Your task to perform on an android device: Open the calendar and show me this week's events Image 0: 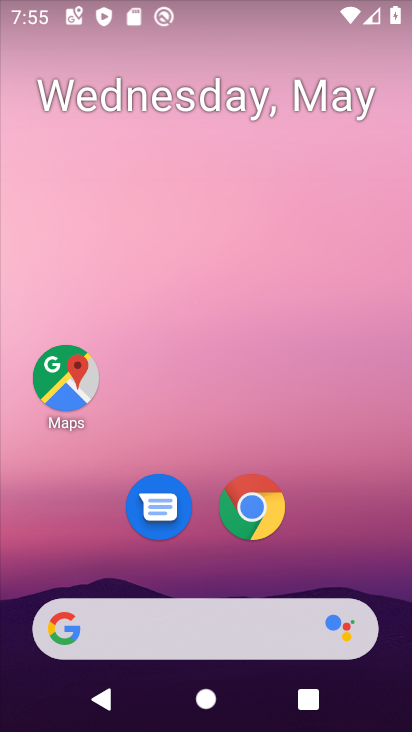
Step 0: drag from (321, 551) to (303, 251)
Your task to perform on an android device: Open the calendar and show me this week's events Image 1: 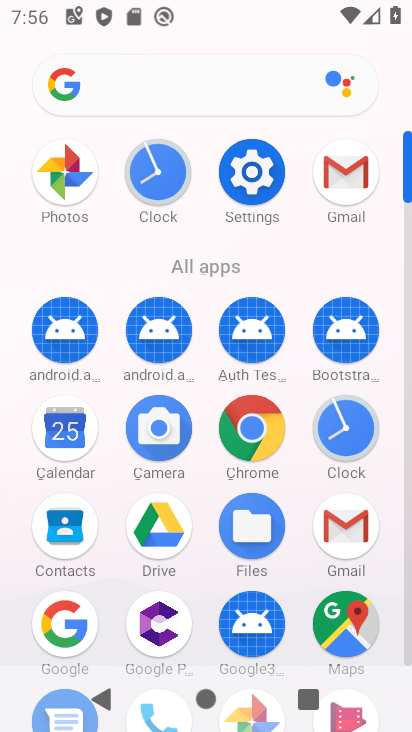
Step 1: click (60, 427)
Your task to perform on an android device: Open the calendar and show me this week's events Image 2: 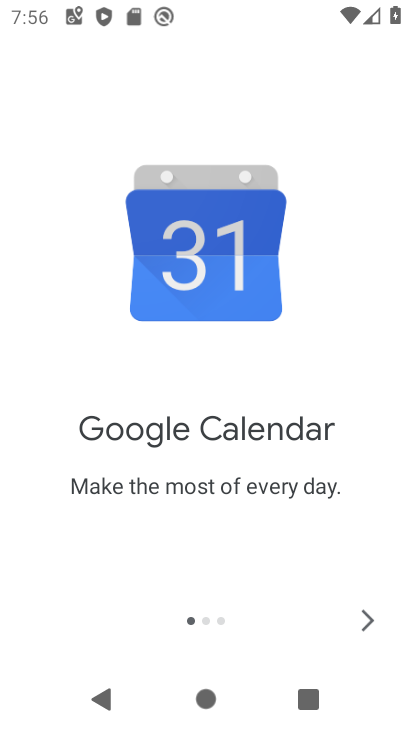
Step 2: click (362, 604)
Your task to perform on an android device: Open the calendar and show me this week's events Image 3: 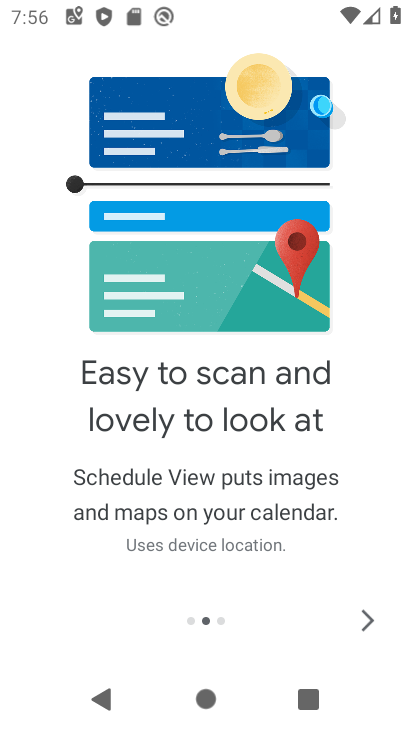
Step 3: click (361, 609)
Your task to perform on an android device: Open the calendar and show me this week's events Image 4: 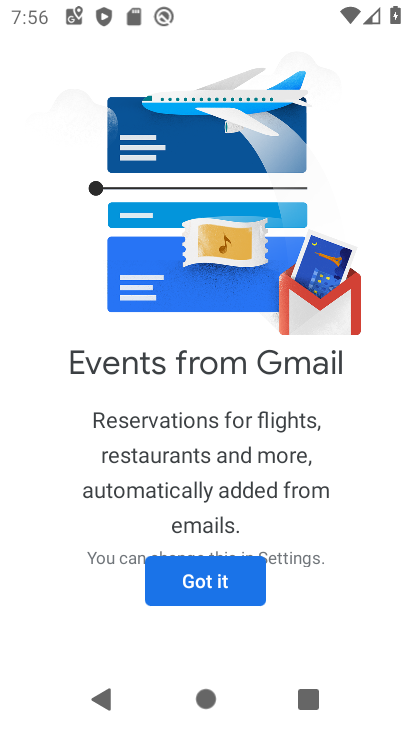
Step 4: click (360, 607)
Your task to perform on an android device: Open the calendar and show me this week's events Image 5: 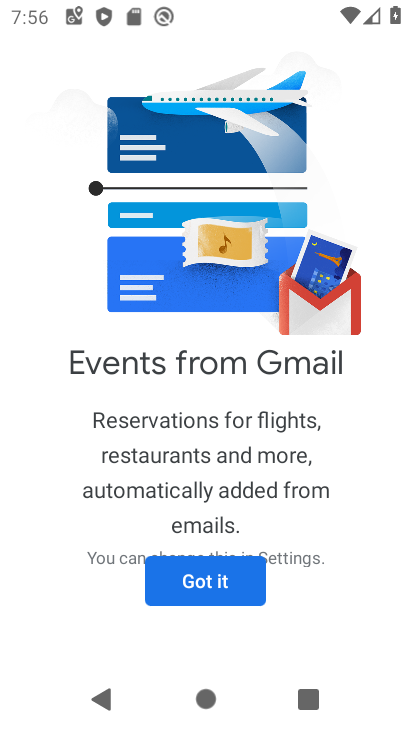
Step 5: click (187, 581)
Your task to perform on an android device: Open the calendar and show me this week's events Image 6: 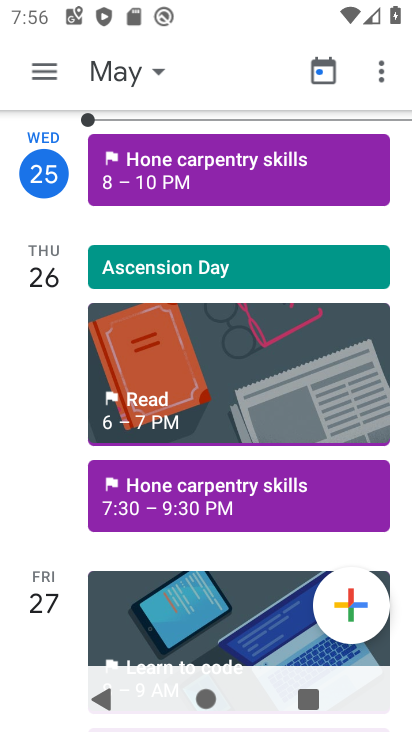
Step 6: click (42, 70)
Your task to perform on an android device: Open the calendar and show me this week's events Image 7: 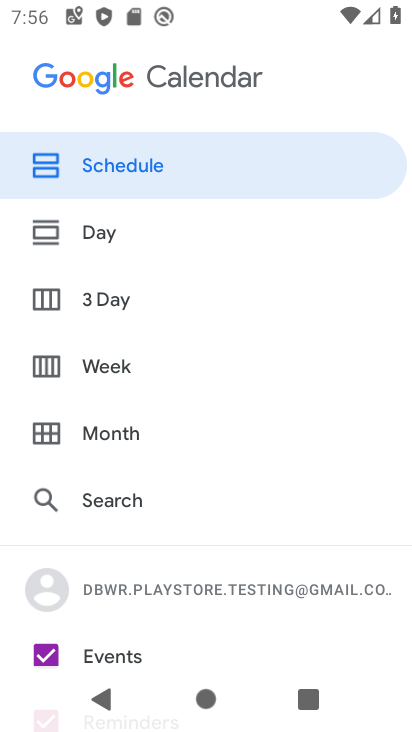
Step 7: click (116, 374)
Your task to perform on an android device: Open the calendar and show me this week's events Image 8: 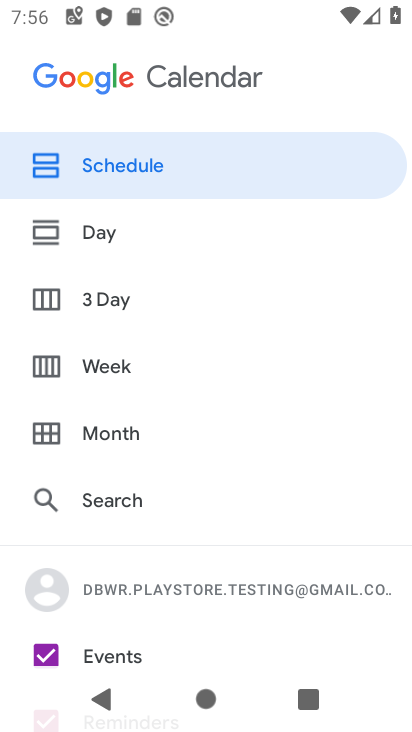
Step 8: click (130, 359)
Your task to perform on an android device: Open the calendar and show me this week's events Image 9: 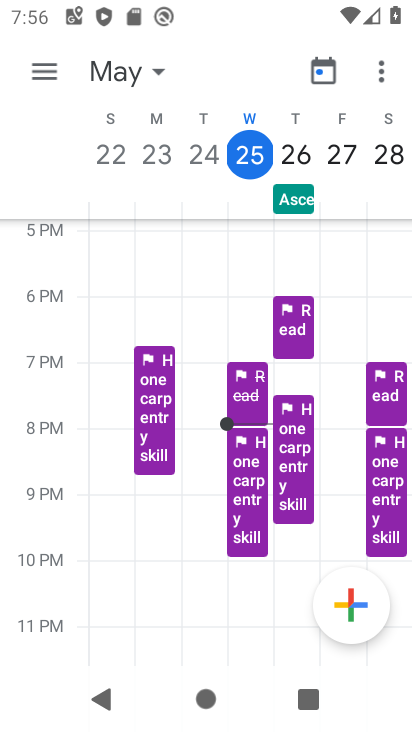
Step 9: task complete